Your task to perform on an android device: Search for the best rated running shoes on Nike.com Image 0: 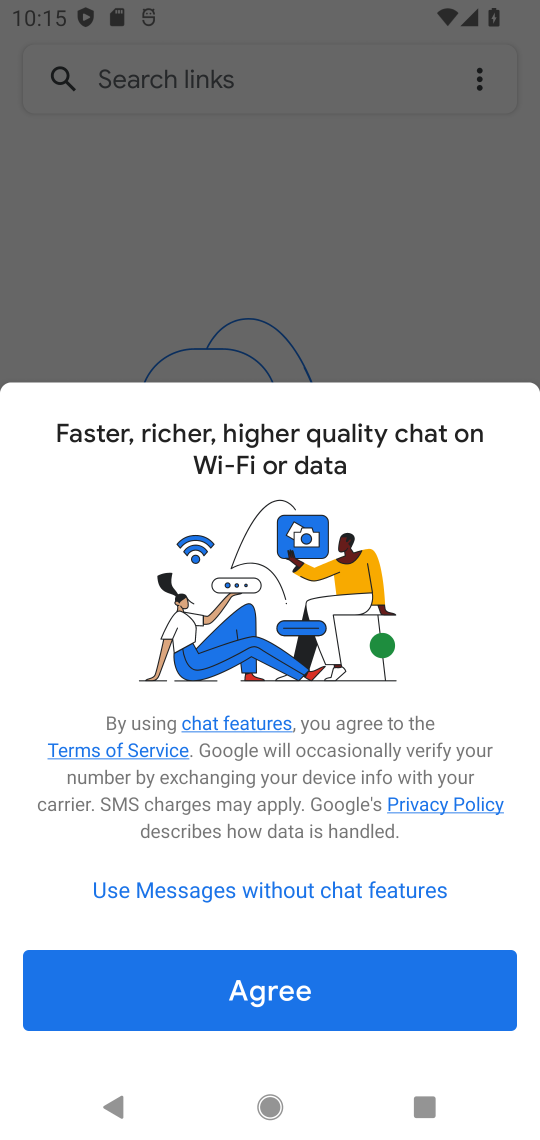
Step 0: press home button
Your task to perform on an android device: Search for the best rated running shoes on Nike.com Image 1: 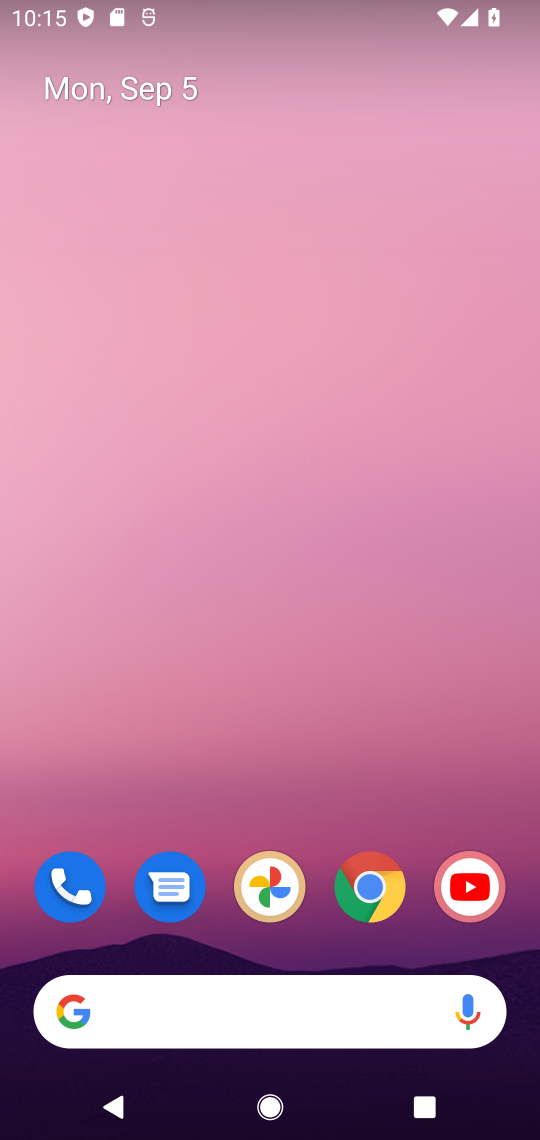
Step 1: click (374, 891)
Your task to perform on an android device: Search for the best rated running shoes on Nike.com Image 2: 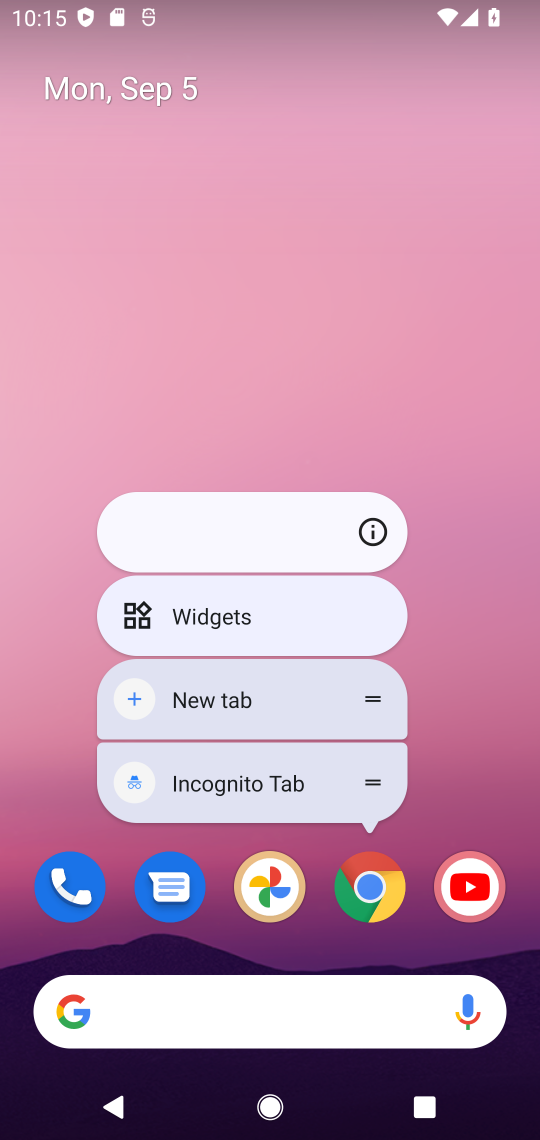
Step 2: click (374, 891)
Your task to perform on an android device: Search for the best rated running shoes on Nike.com Image 3: 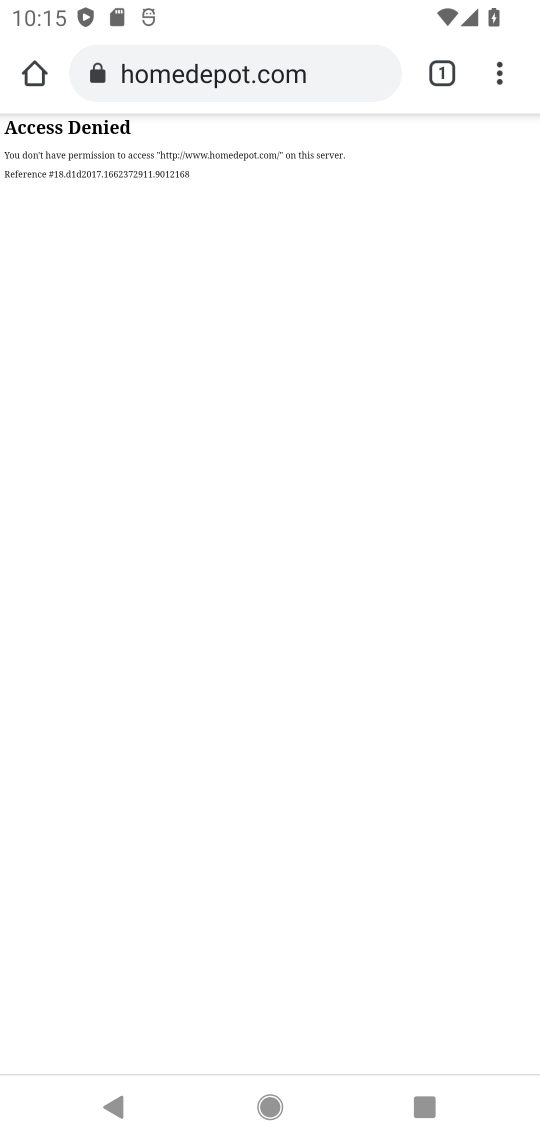
Step 3: click (188, 74)
Your task to perform on an android device: Search for the best rated running shoes on Nike.com Image 4: 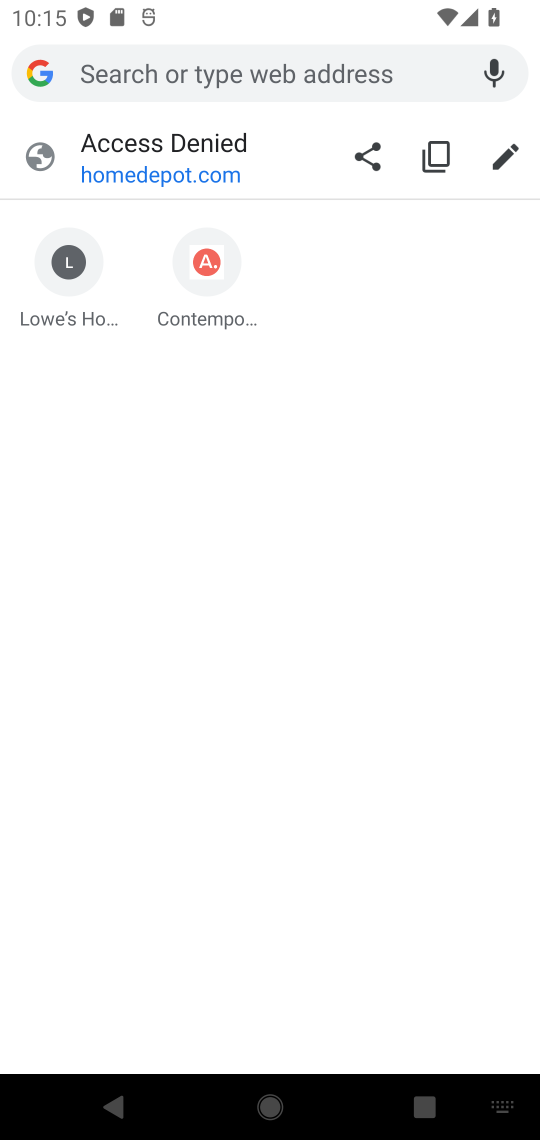
Step 4: type "Nike.com"
Your task to perform on an android device: Search for the best rated running shoes on Nike.com Image 5: 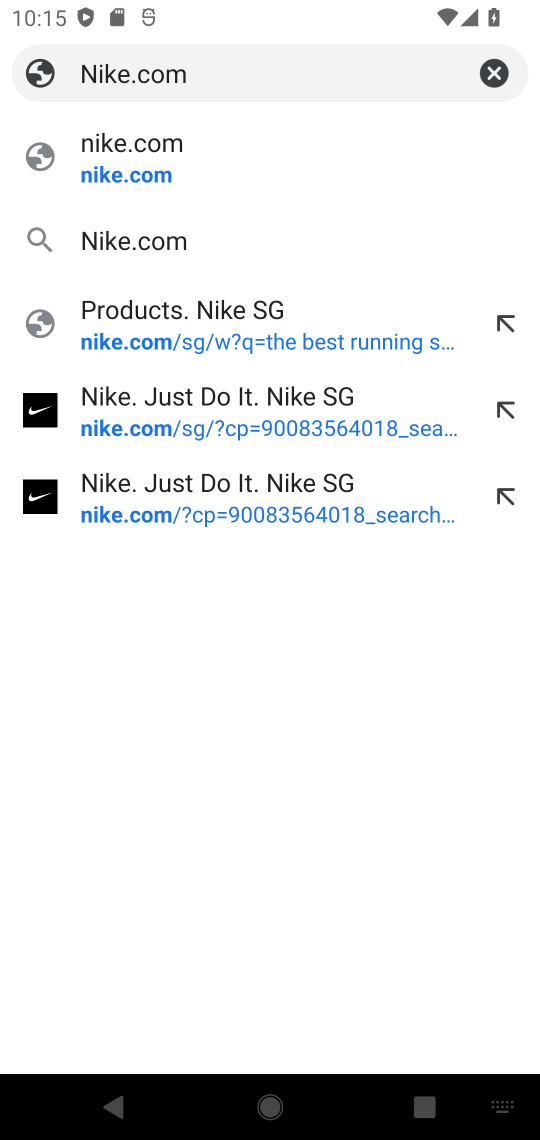
Step 5: click (216, 152)
Your task to perform on an android device: Search for the best rated running shoes on Nike.com Image 6: 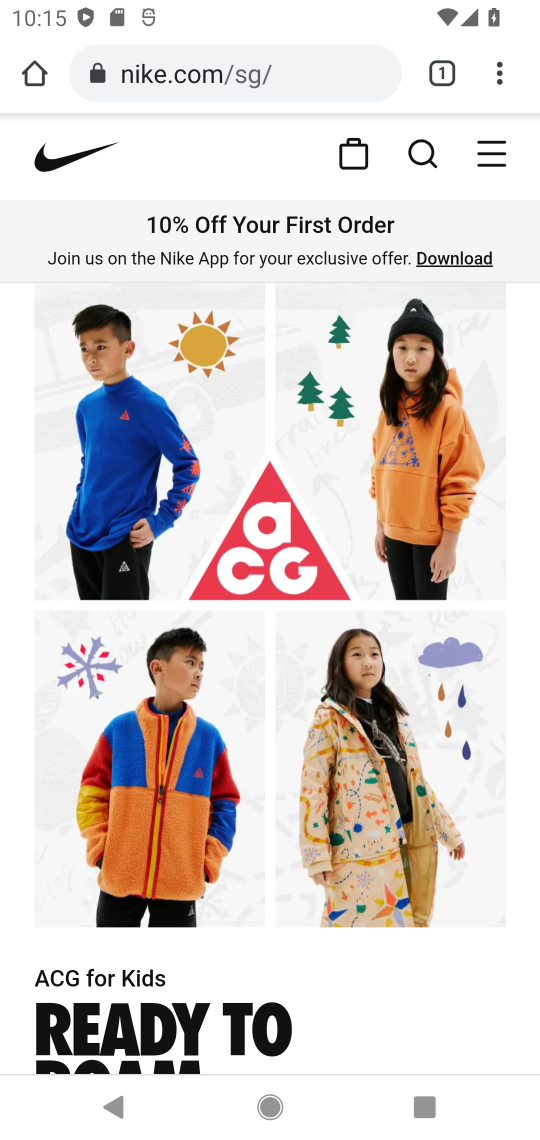
Step 6: click (422, 152)
Your task to perform on an android device: Search for the best rated running shoes on Nike.com Image 7: 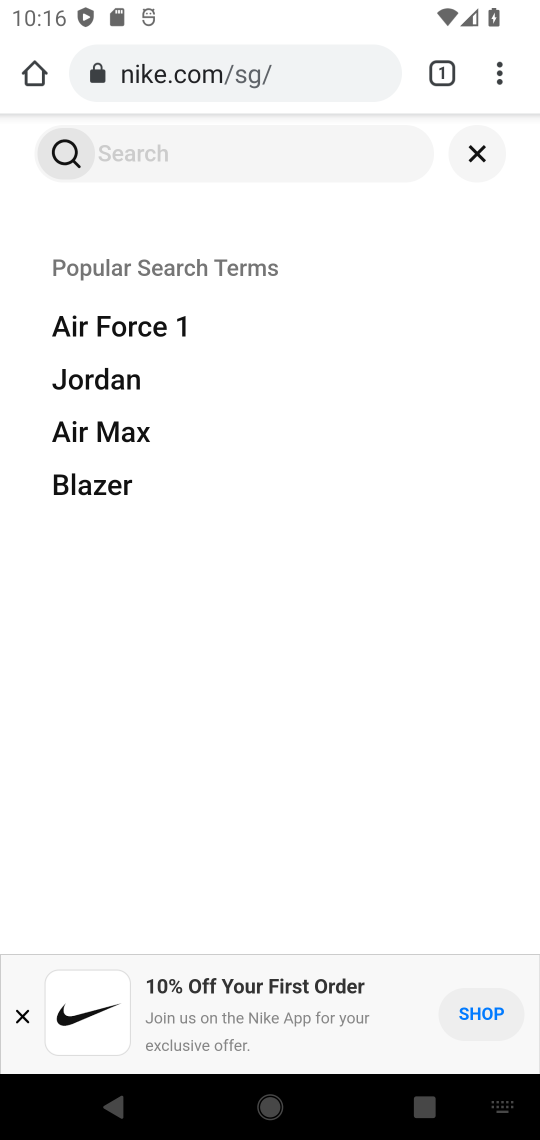
Step 7: type "the best rated running shoes "
Your task to perform on an android device: Search for the best rated running shoes on Nike.com Image 8: 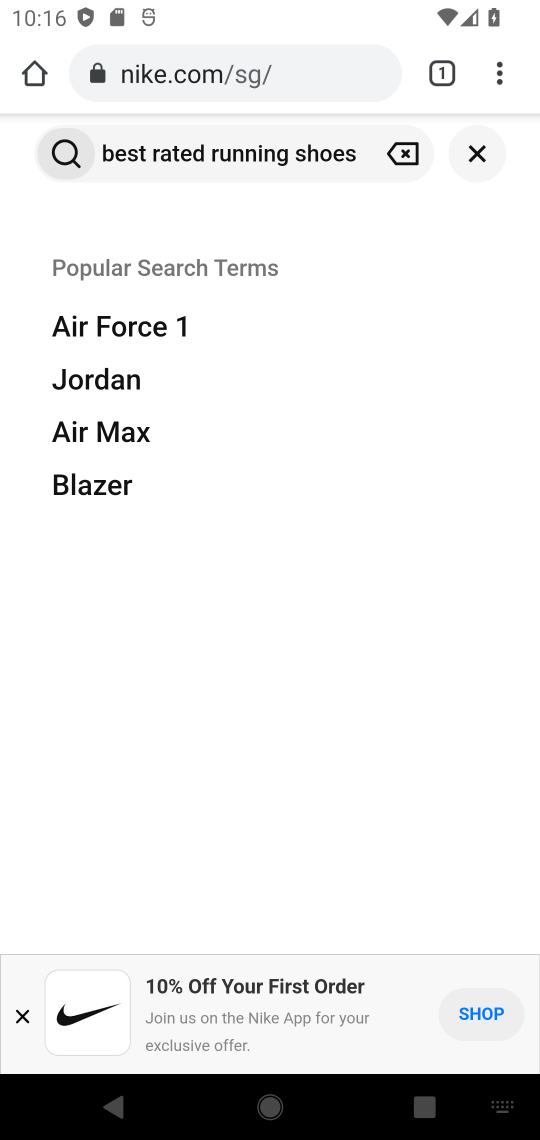
Step 8: click (63, 152)
Your task to perform on an android device: Search for the best rated running shoes on Nike.com Image 9: 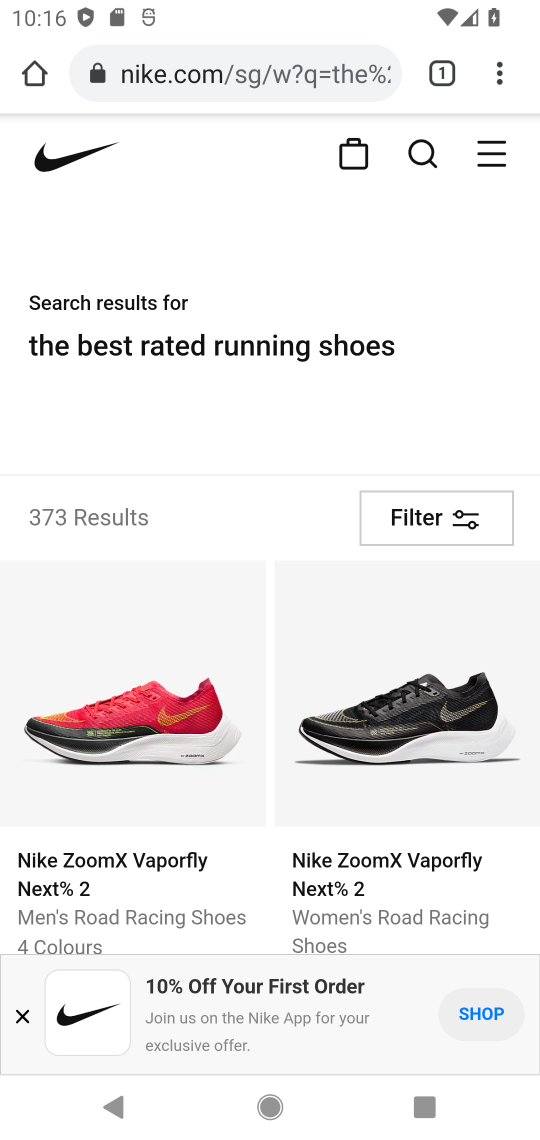
Step 9: task complete